Your task to perform on an android device: Open Google Chrome and click the shortcut for Amazon.com Image 0: 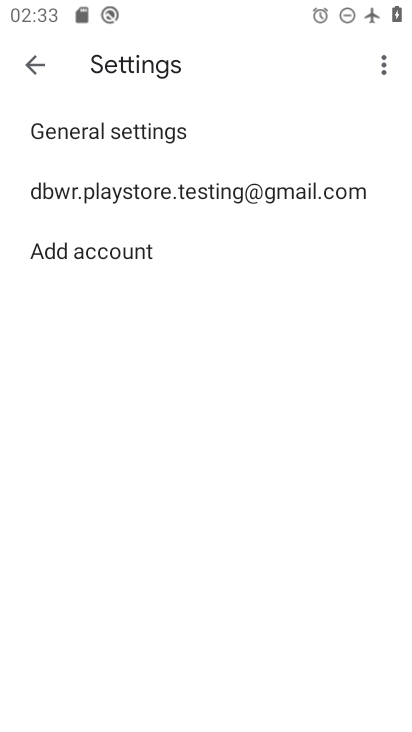
Step 0: press home button
Your task to perform on an android device: Open Google Chrome and click the shortcut for Amazon.com Image 1: 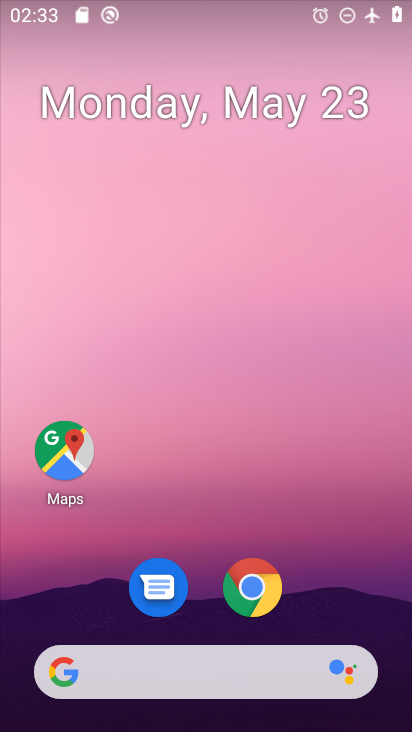
Step 1: click (249, 601)
Your task to perform on an android device: Open Google Chrome and click the shortcut for Amazon.com Image 2: 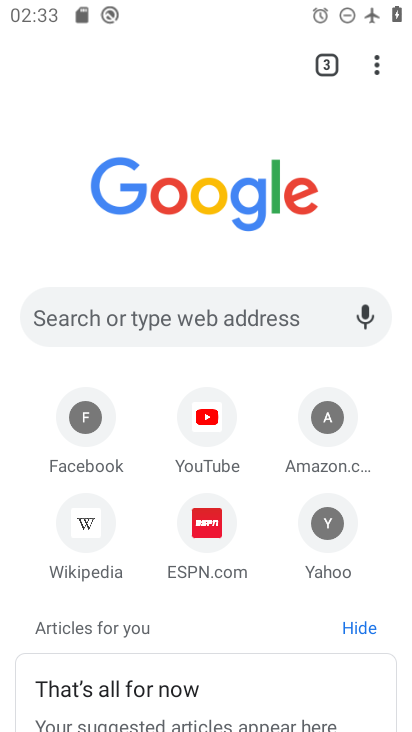
Step 2: click (325, 444)
Your task to perform on an android device: Open Google Chrome and click the shortcut for Amazon.com Image 3: 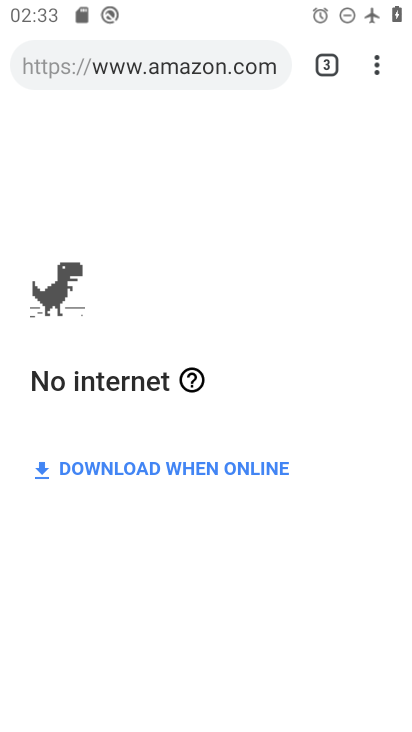
Step 3: task complete